Your task to perform on an android device: turn on data saver in the chrome app Image 0: 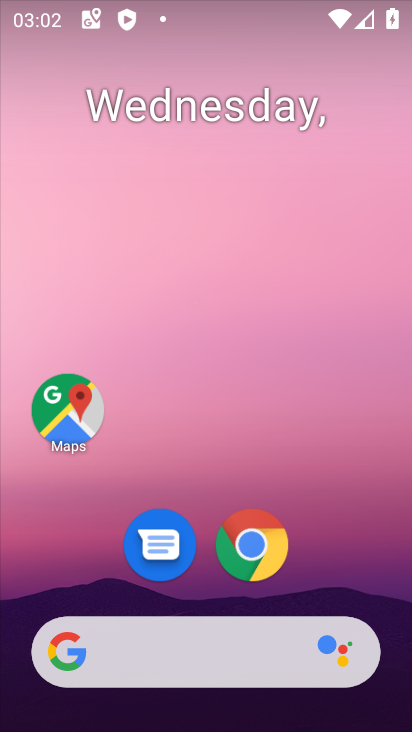
Step 0: press home button
Your task to perform on an android device: turn on data saver in the chrome app Image 1: 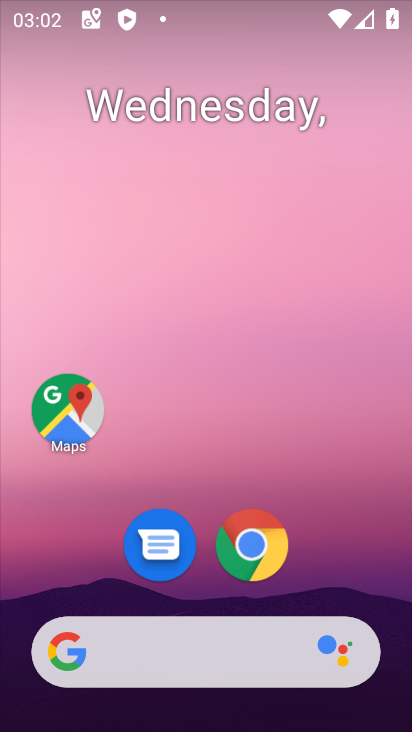
Step 1: click (267, 560)
Your task to perform on an android device: turn on data saver in the chrome app Image 2: 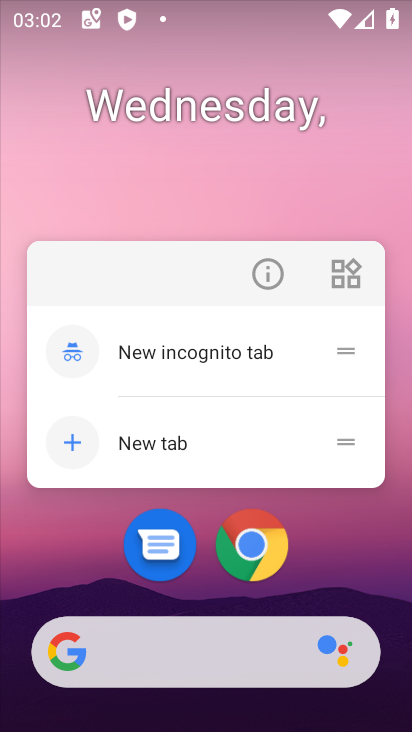
Step 2: click (254, 547)
Your task to perform on an android device: turn on data saver in the chrome app Image 3: 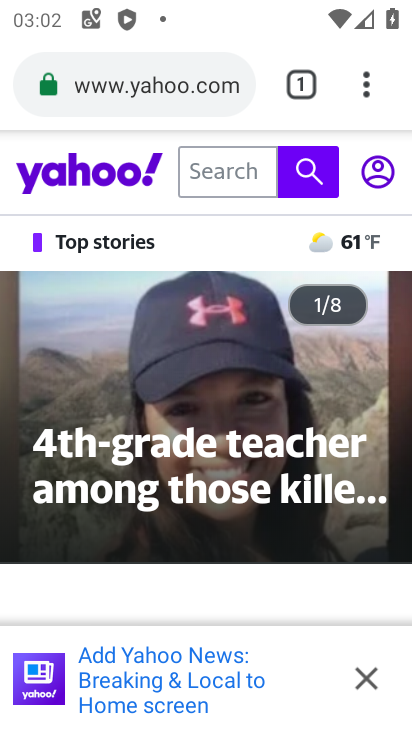
Step 3: drag from (367, 88) to (181, 592)
Your task to perform on an android device: turn on data saver in the chrome app Image 4: 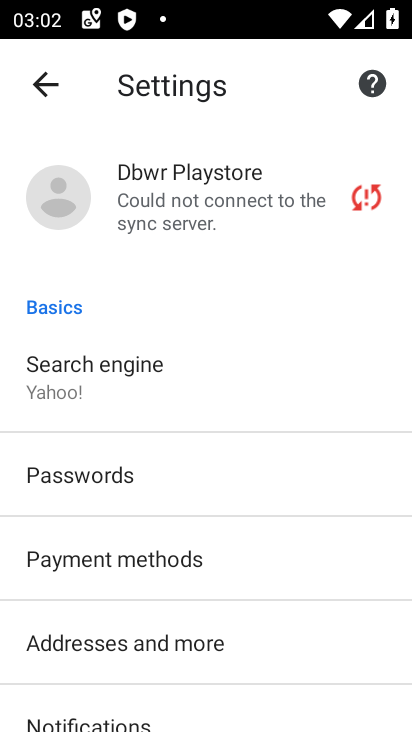
Step 4: drag from (204, 652) to (262, 197)
Your task to perform on an android device: turn on data saver in the chrome app Image 5: 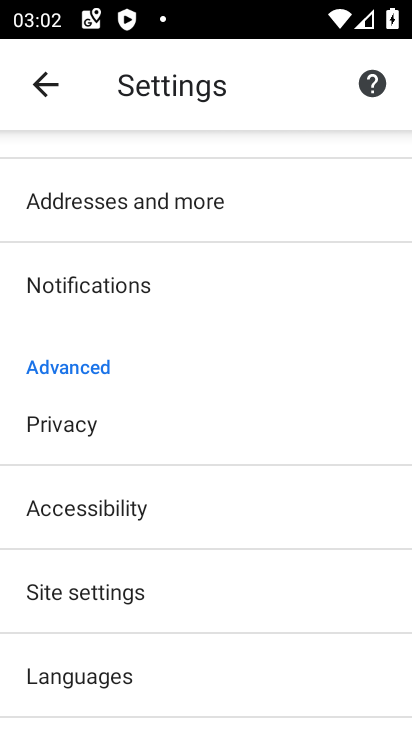
Step 5: drag from (165, 645) to (273, 173)
Your task to perform on an android device: turn on data saver in the chrome app Image 6: 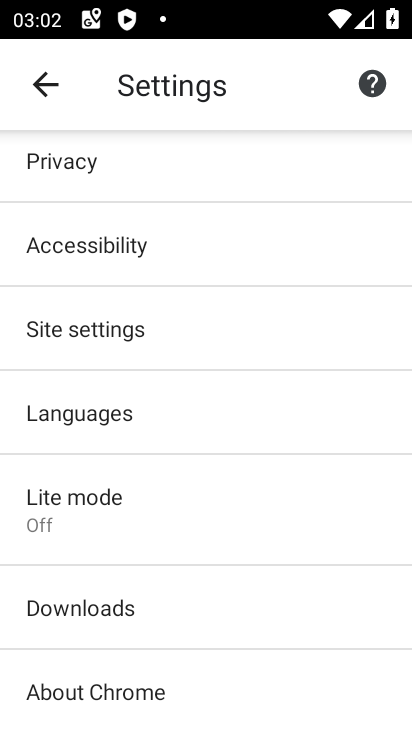
Step 6: click (113, 512)
Your task to perform on an android device: turn on data saver in the chrome app Image 7: 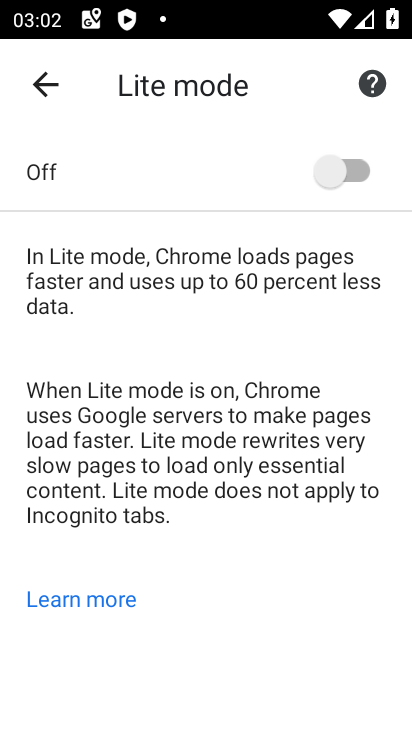
Step 7: click (350, 172)
Your task to perform on an android device: turn on data saver in the chrome app Image 8: 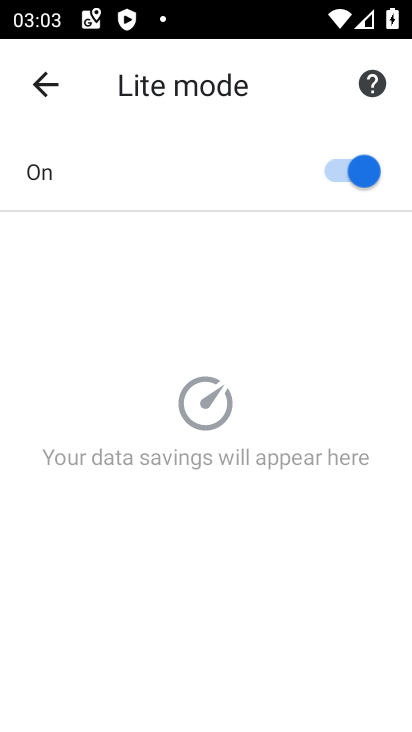
Step 8: task complete